Your task to perform on an android device: Search for seafood restaurants on Google Maps Image 0: 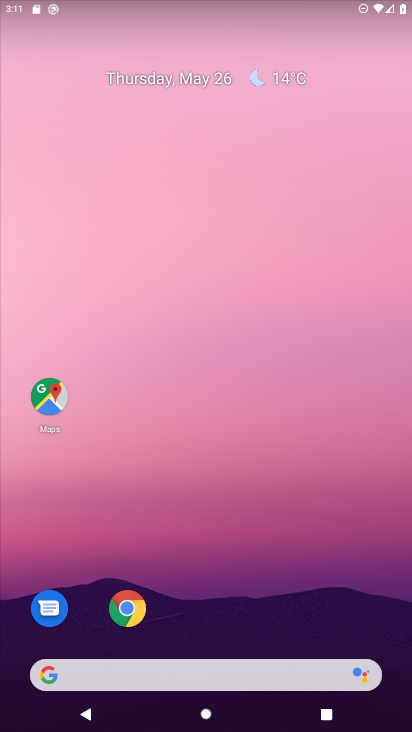
Step 0: drag from (309, 435) to (327, 43)
Your task to perform on an android device: Search for seafood restaurants on Google Maps Image 1: 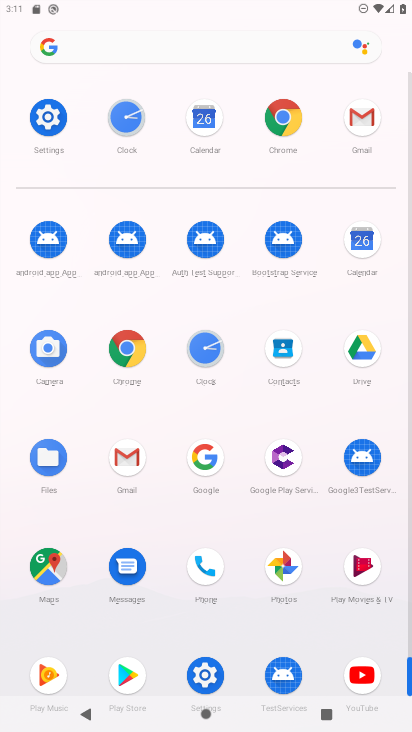
Step 1: click (48, 558)
Your task to perform on an android device: Search for seafood restaurants on Google Maps Image 2: 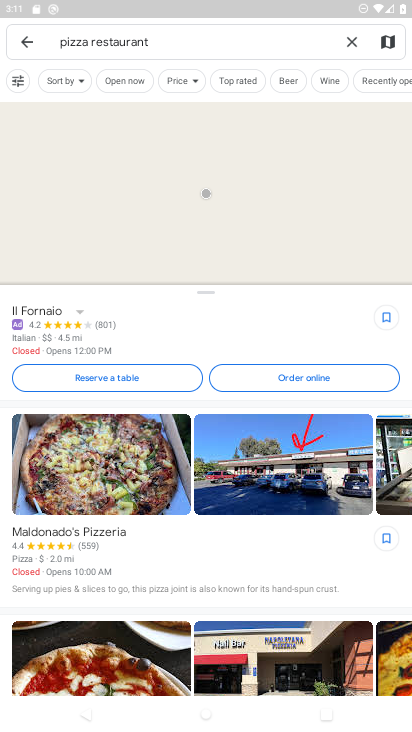
Step 2: click (356, 35)
Your task to perform on an android device: Search for seafood restaurants on Google Maps Image 3: 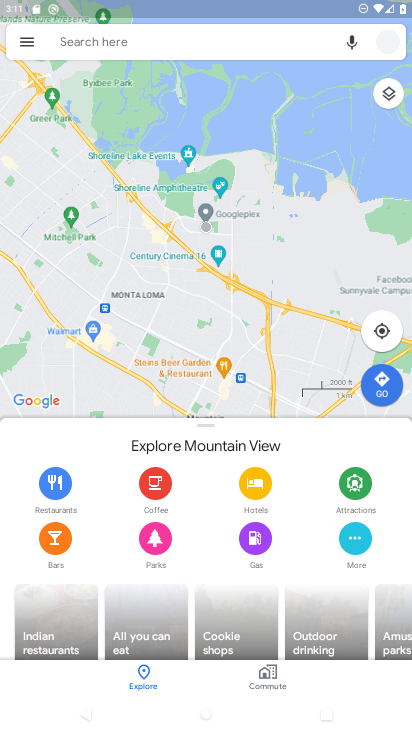
Step 3: click (159, 53)
Your task to perform on an android device: Search for seafood restaurants on Google Maps Image 4: 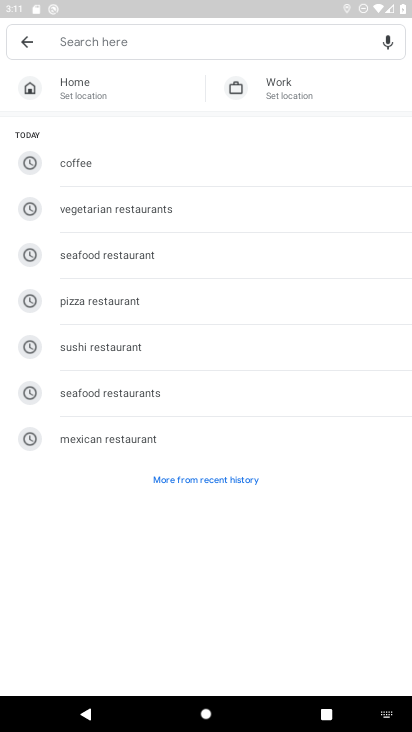
Step 4: click (70, 256)
Your task to perform on an android device: Search for seafood restaurants on Google Maps Image 5: 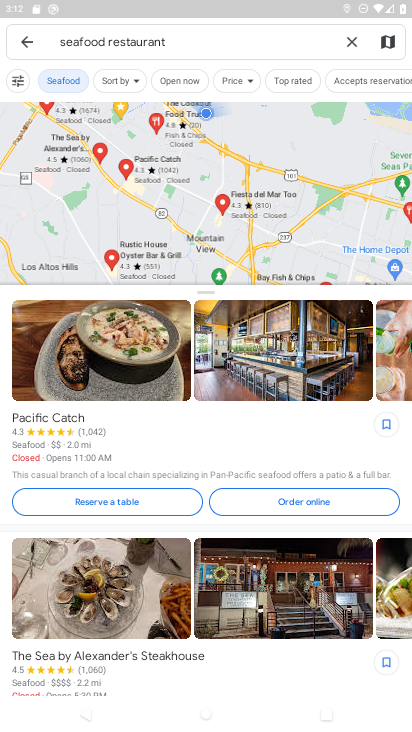
Step 5: task complete